Your task to perform on an android device: Open a new private window in the chrome app Image 0: 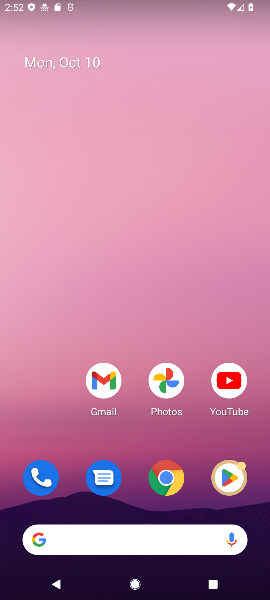
Step 0: click (161, 471)
Your task to perform on an android device: Open a new private window in the chrome app Image 1: 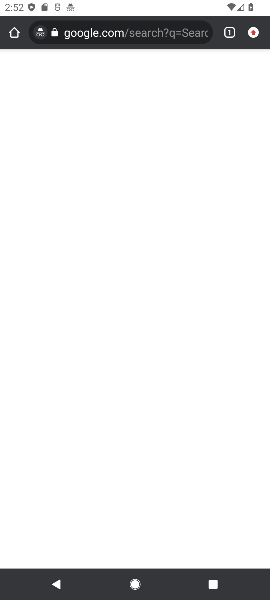
Step 1: click (233, 36)
Your task to perform on an android device: Open a new private window in the chrome app Image 2: 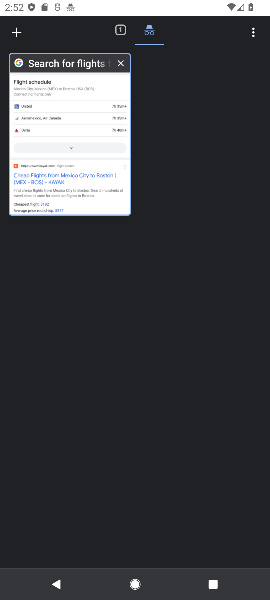
Step 2: click (260, 32)
Your task to perform on an android device: Open a new private window in the chrome app Image 3: 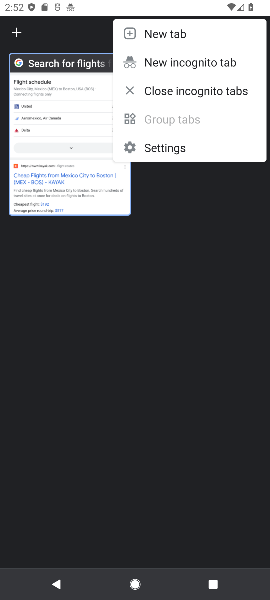
Step 3: click (189, 67)
Your task to perform on an android device: Open a new private window in the chrome app Image 4: 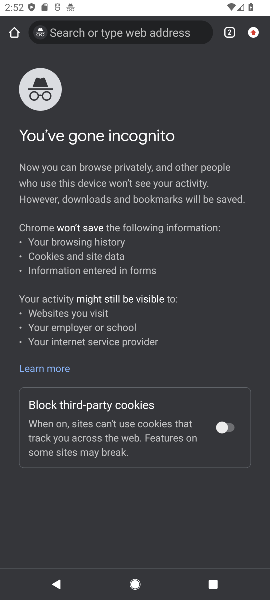
Step 4: task complete